Your task to perform on an android device: turn on data saver in the chrome app Image 0: 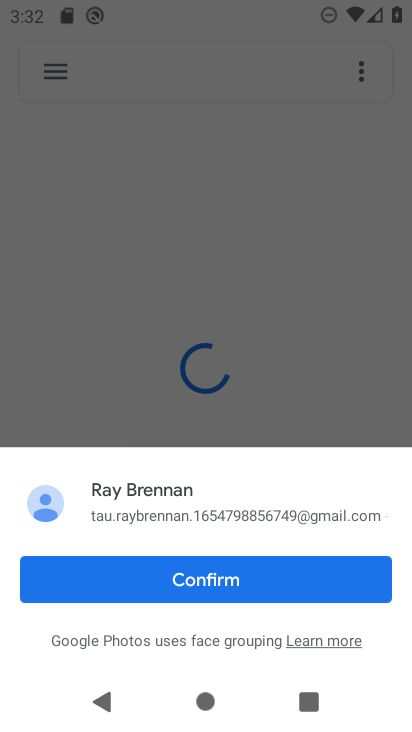
Step 0: press home button
Your task to perform on an android device: turn on data saver in the chrome app Image 1: 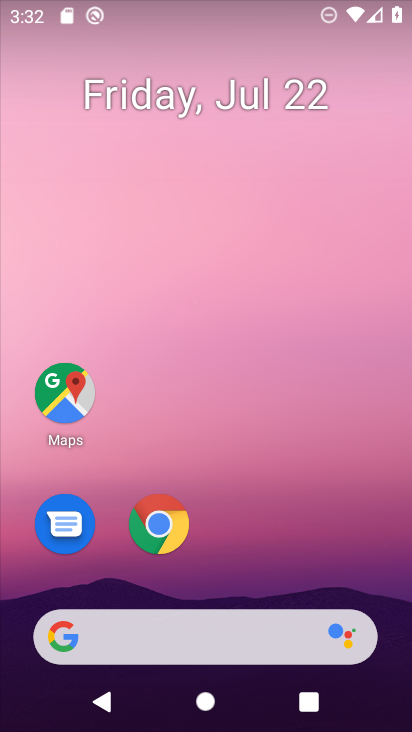
Step 1: click (165, 520)
Your task to perform on an android device: turn on data saver in the chrome app Image 2: 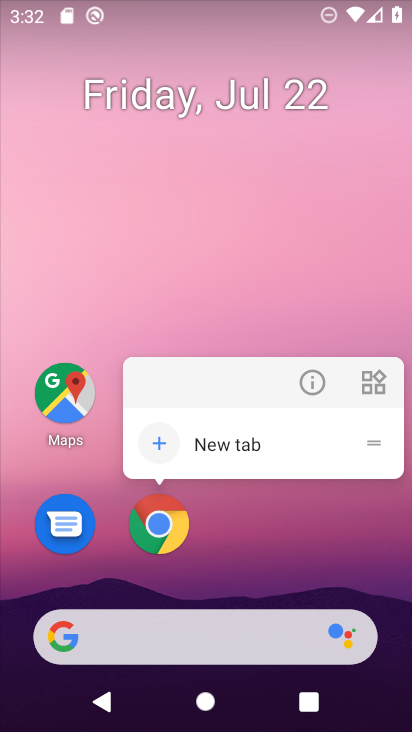
Step 2: click (167, 533)
Your task to perform on an android device: turn on data saver in the chrome app Image 3: 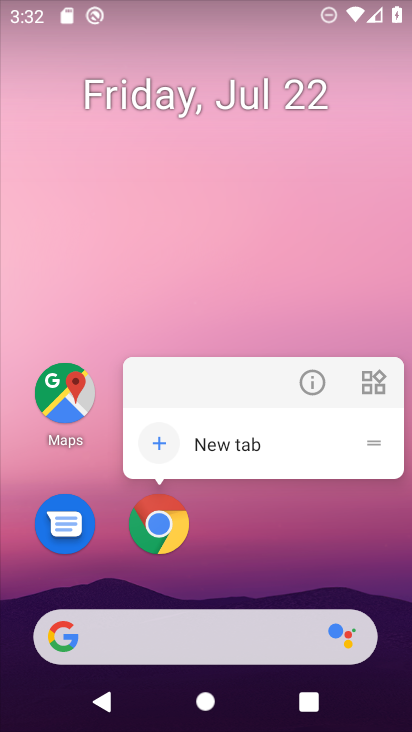
Step 3: click (148, 521)
Your task to perform on an android device: turn on data saver in the chrome app Image 4: 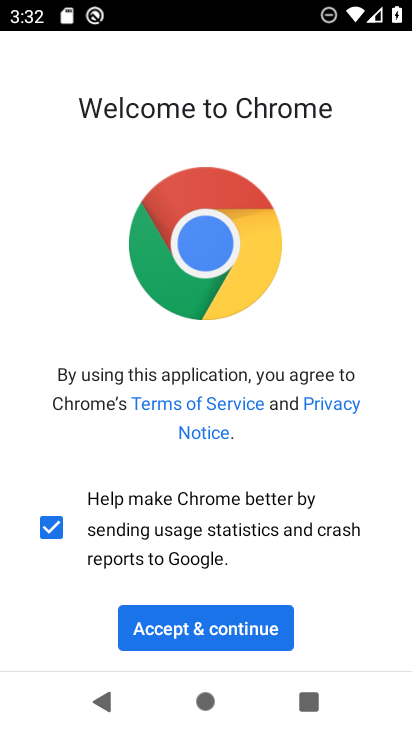
Step 4: click (223, 636)
Your task to perform on an android device: turn on data saver in the chrome app Image 5: 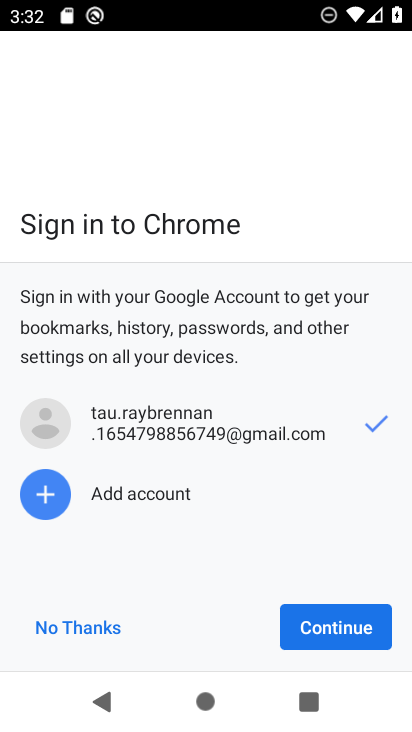
Step 5: click (331, 626)
Your task to perform on an android device: turn on data saver in the chrome app Image 6: 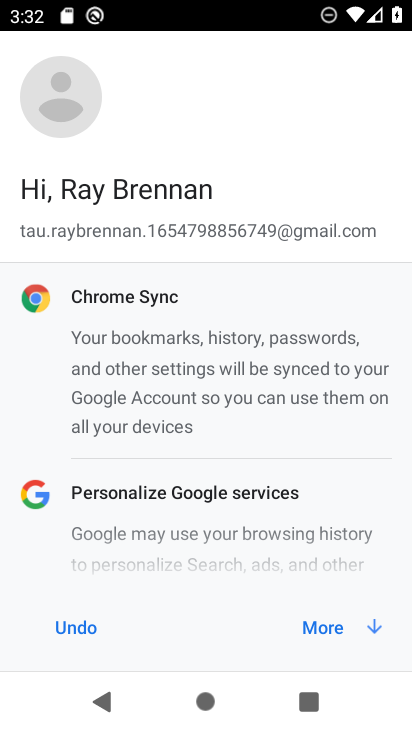
Step 6: click (331, 627)
Your task to perform on an android device: turn on data saver in the chrome app Image 7: 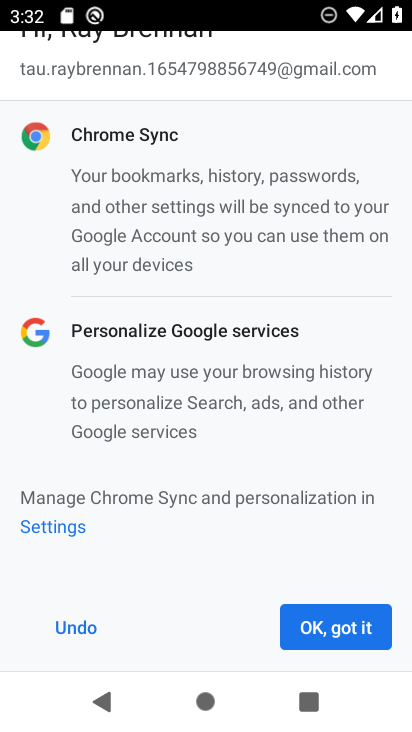
Step 7: click (344, 617)
Your task to perform on an android device: turn on data saver in the chrome app Image 8: 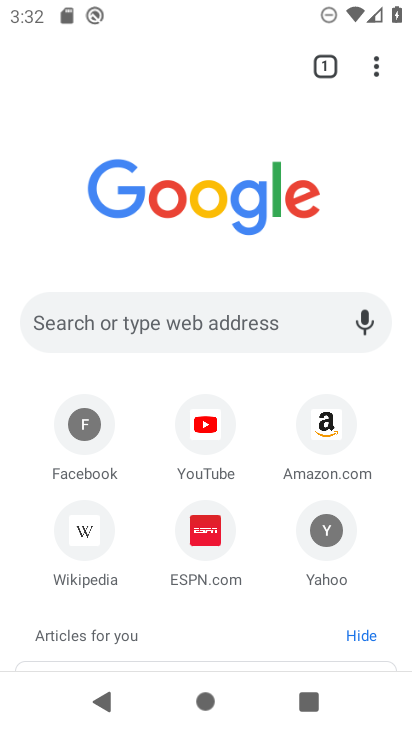
Step 8: drag from (378, 60) to (221, 566)
Your task to perform on an android device: turn on data saver in the chrome app Image 9: 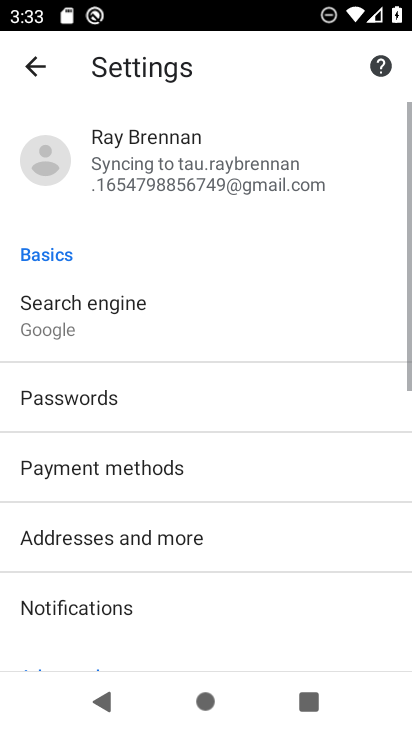
Step 9: drag from (210, 610) to (296, 20)
Your task to perform on an android device: turn on data saver in the chrome app Image 10: 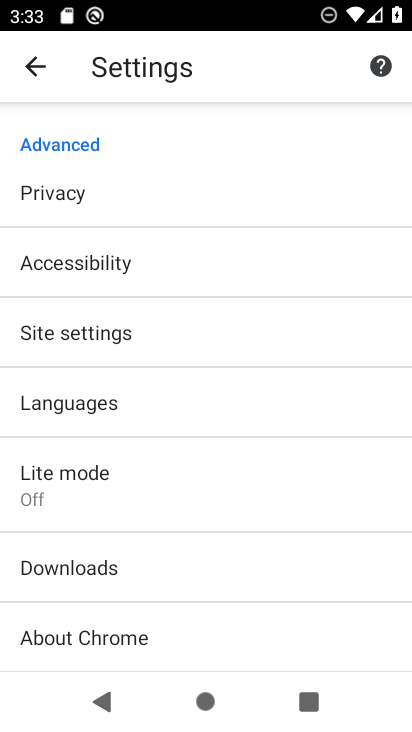
Step 10: click (138, 490)
Your task to perform on an android device: turn on data saver in the chrome app Image 11: 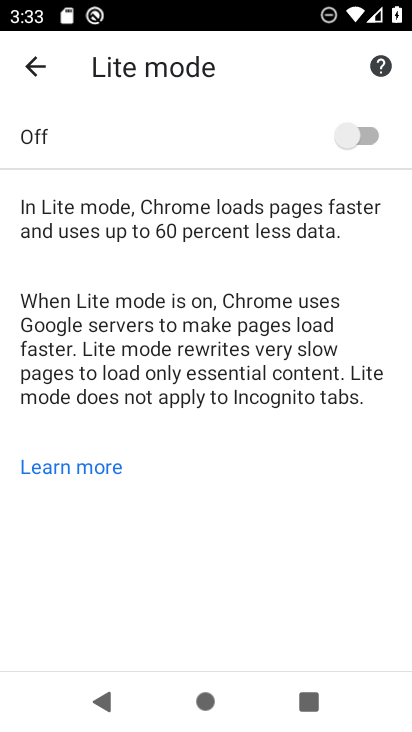
Step 11: click (372, 135)
Your task to perform on an android device: turn on data saver in the chrome app Image 12: 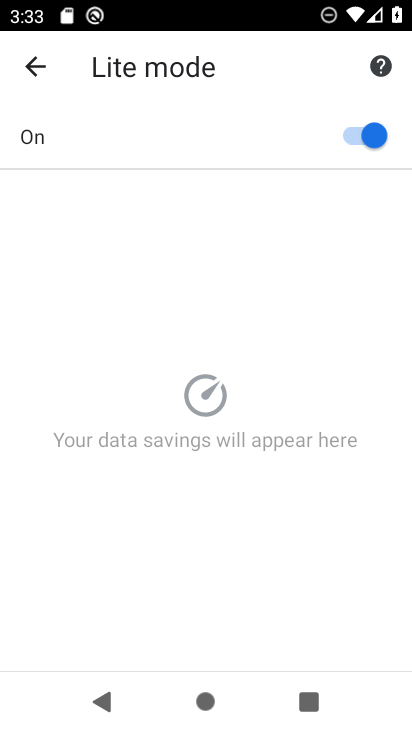
Step 12: task complete